Your task to perform on an android device: Look up the best gaming headphones on Best Buy Image 0: 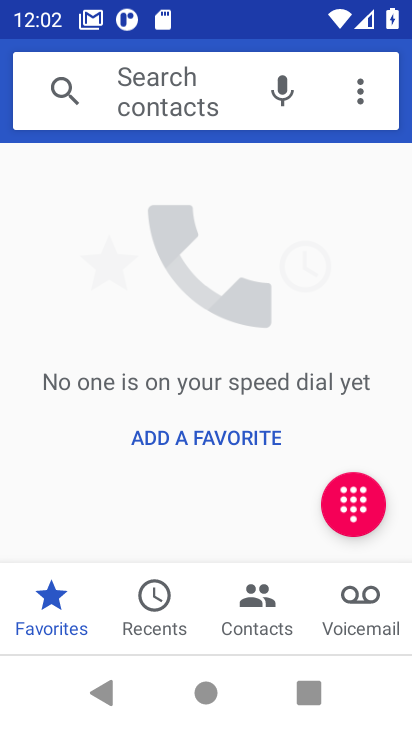
Step 0: press home button
Your task to perform on an android device: Look up the best gaming headphones on Best Buy Image 1: 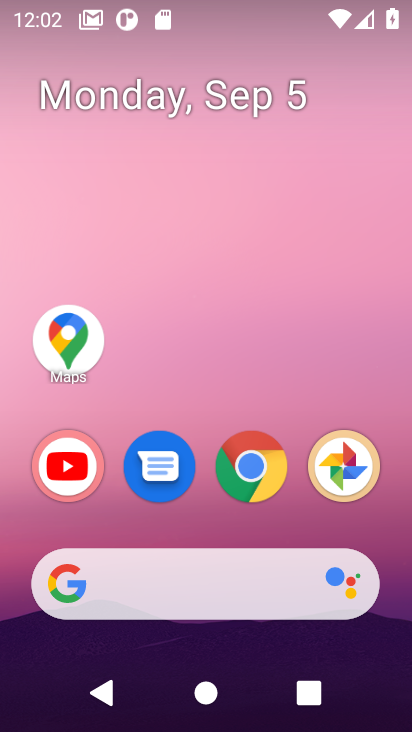
Step 1: click (209, 34)
Your task to perform on an android device: Look up the best gaming headphones on Best Buy Image 2: 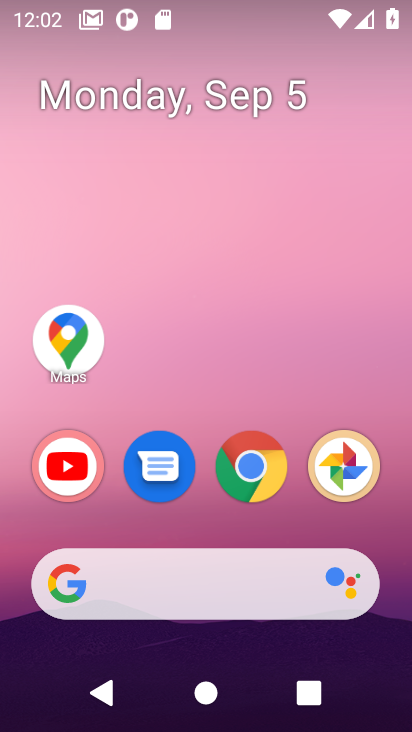
Step 2: drag from (205, 217) to (163, 11)
Your task to perform on an android device: Look up the best gaming headphones on Best Buy Image 3: 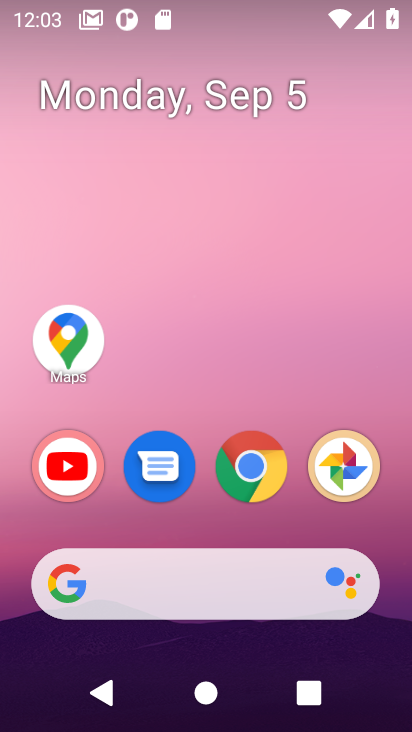
Step 3: drag from (191, 421) to (124, 40)
Your task to perform on an android device: Look up the best gaming headphones on Best Buy Image 4: 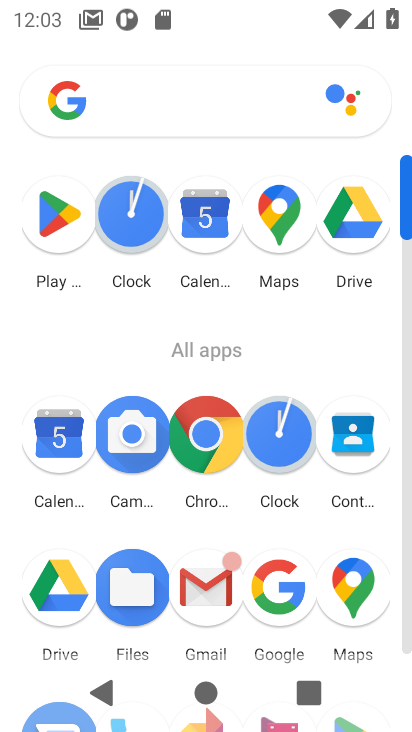
Step 4: click (208, 445)
Your task to perform on an android device: Look up the best gaming headphones on Best Buy Image 5: 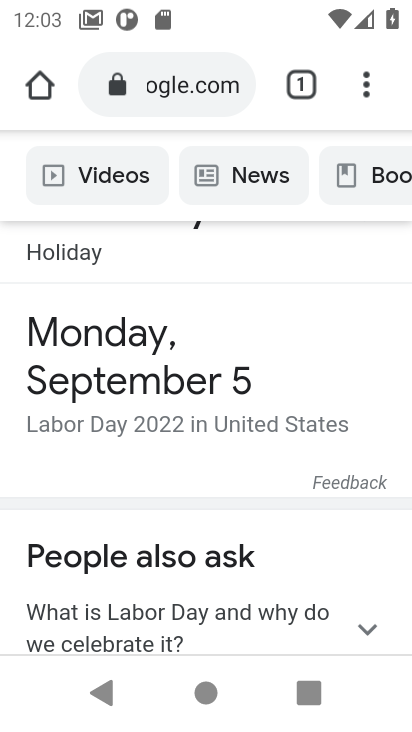
Step 5: click (179, 92)
Your task to perform on an android device: Look up the best gaming headphones on Best Buy Image 6: 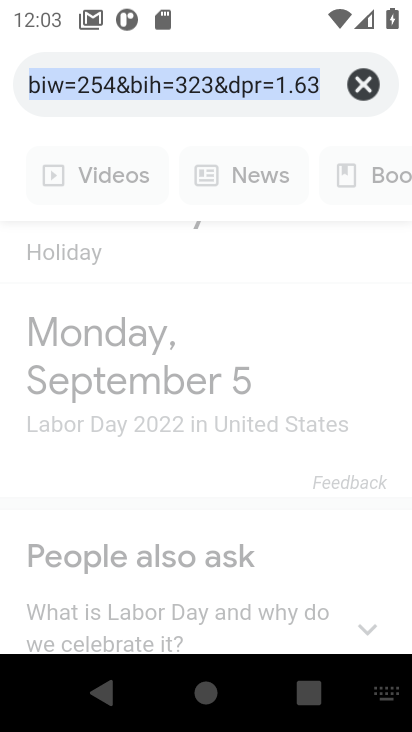
Step 6: type "Best Buy"
Your task to perform on an android device: Look up the best gaming headphones on Best Buy Image 7: 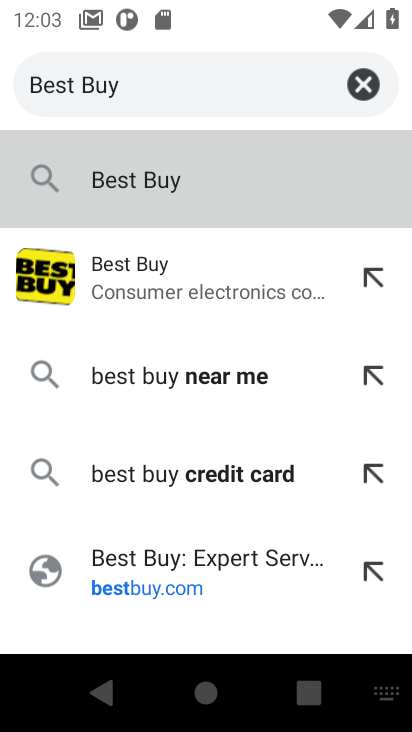
Step 7: click (108, 176)
Your task to perform on an android device: Look up the best gaming headphones on Best Buy Image 8: 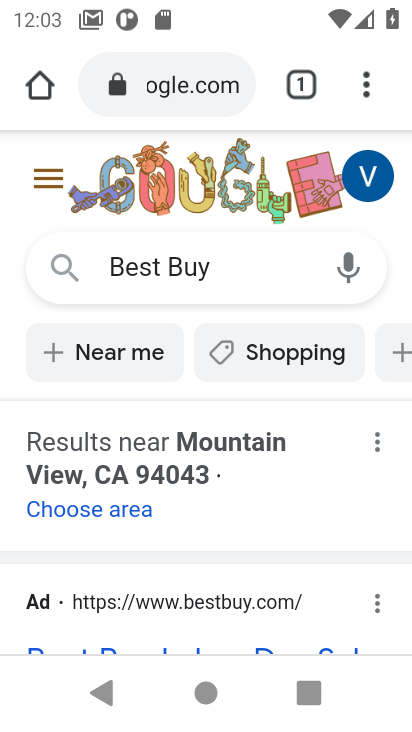
Step 8: drag from (304, 526) to (330, 1)
Your task to perform on an android device: Look up the best gaming headphones on Best Buy Image 9: 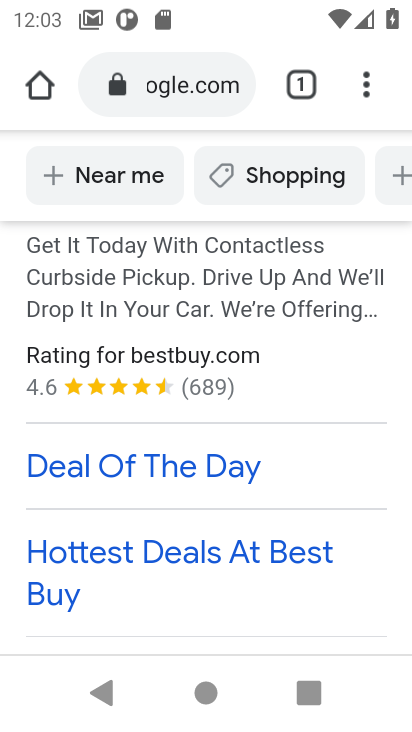
Step 9: drag from (224, 618) to (273, 305)
Your task to perform on an android device: Look up the best gaming headphones on Best Buy Image 10: 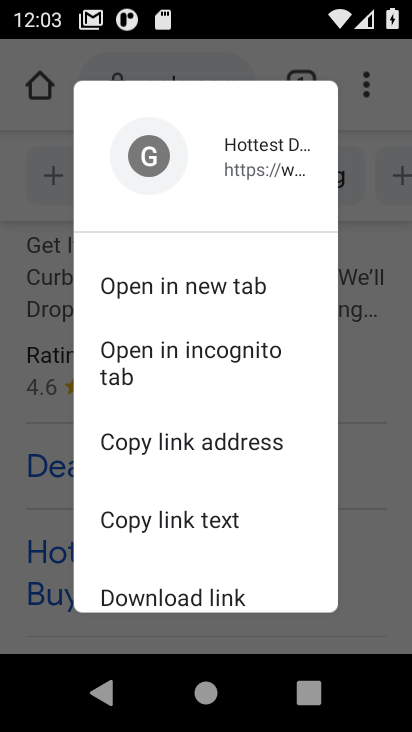
Step 10: click (378, 364)
Your task to perform on an android device: Look up the best gaming headphones on Best Buy Image 11: 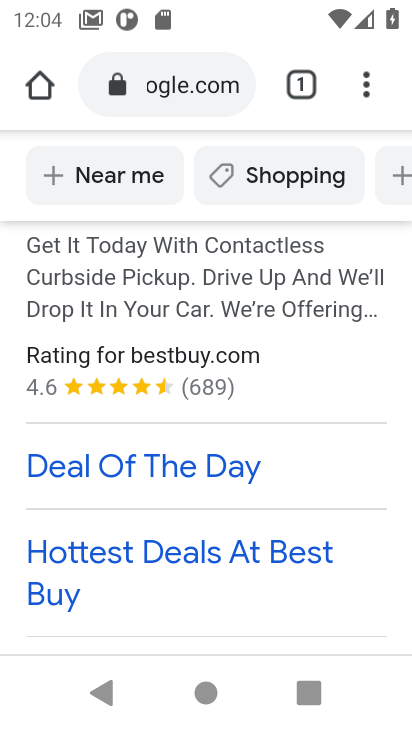
Step 11: click (143, 476)
Your task to perform on an android device: Look up the best gaming headphones on Best Buy Image 12: 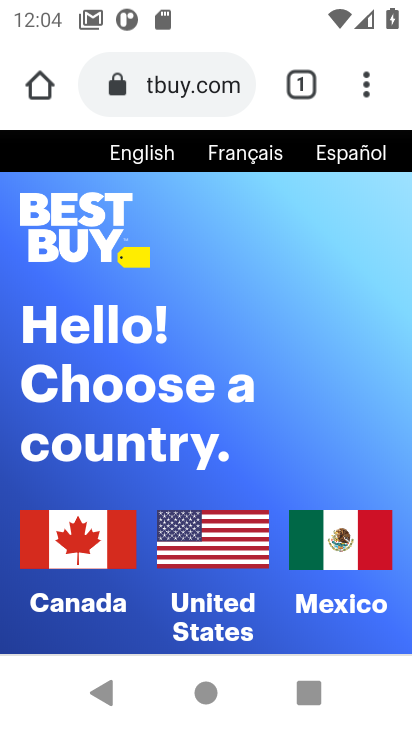
Step 12: task complete